Your task to perform on an android device: Open the Play Movies app and select the watchlist tab. Image 0: 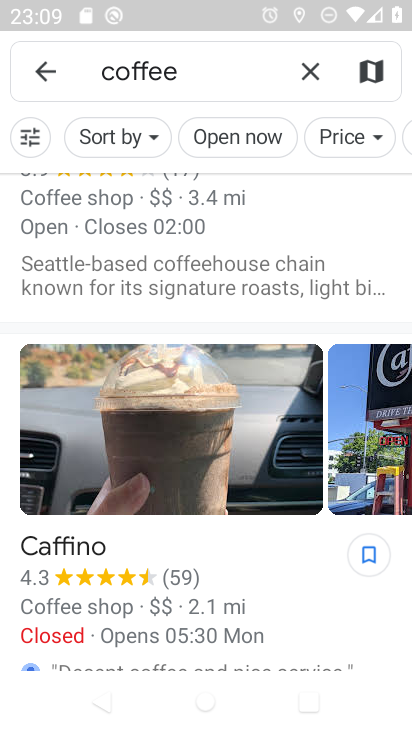
Step 0: press home button
Your task to perform on an android device: Open the Play Movies app and select the watchlist tab. Image 1: 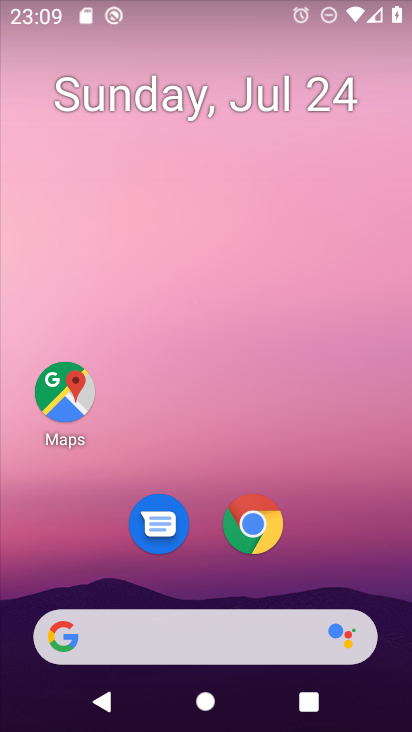
Step 1: drag from (180, 639) to (285, 46)
Your task to perform on an android device: Open the Play Movies app and select the watchlist tab. Image 2: 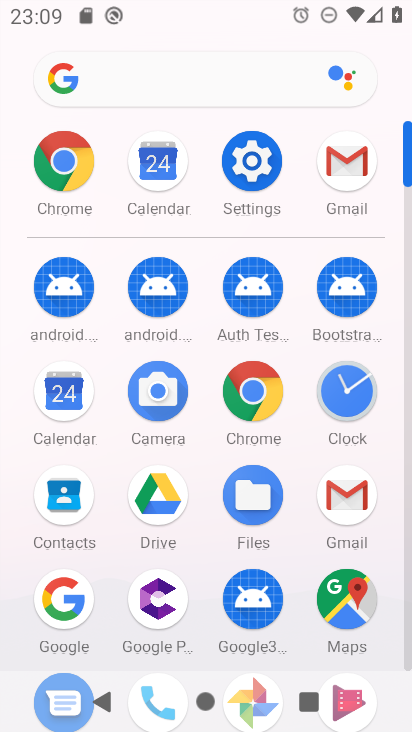
Step 2: drag from (196, 577) to (279, 137)
Your task to perform on an android device: Open the Play Movies app and select the watchlist tab. Image 3: 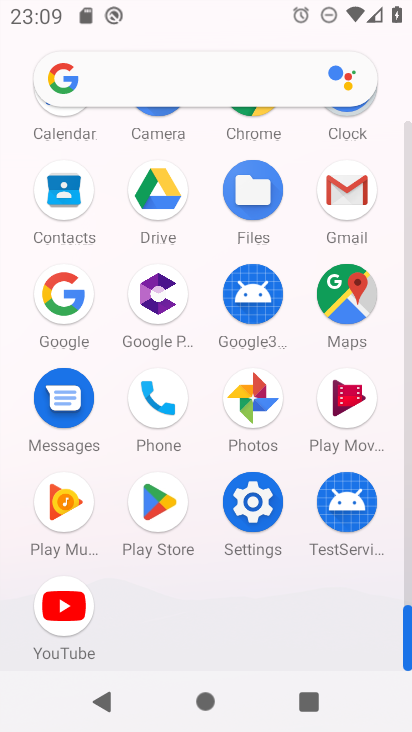
Step 3: click (165, 407)
Your task to perform on an android device: Open the Play Movies app and select the watchlist tab. Image 4: 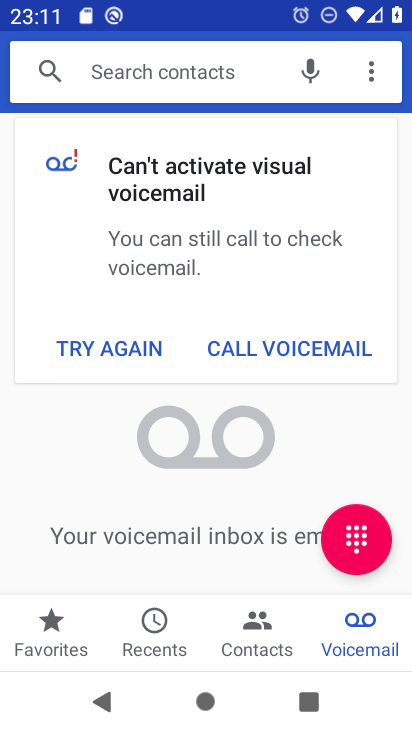
Step 4: task complete